Your task to perform on an android device: search for starred emails in the gmail app Image 0: 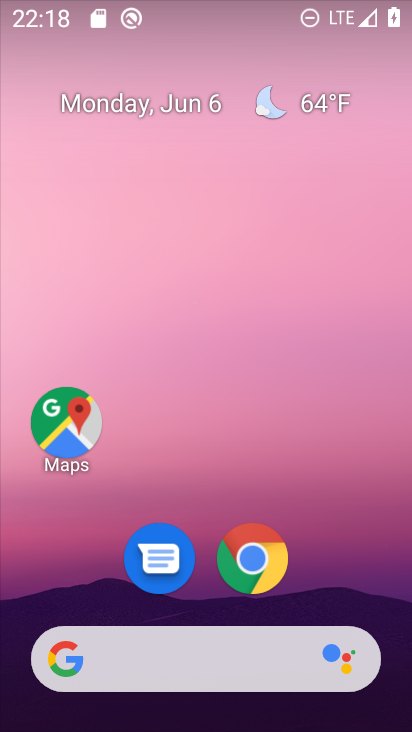
Step 0: drag from (268, 683) to (245, 2)
Your task to perform on an android device: search for starred emails in the gmail app Image 1: 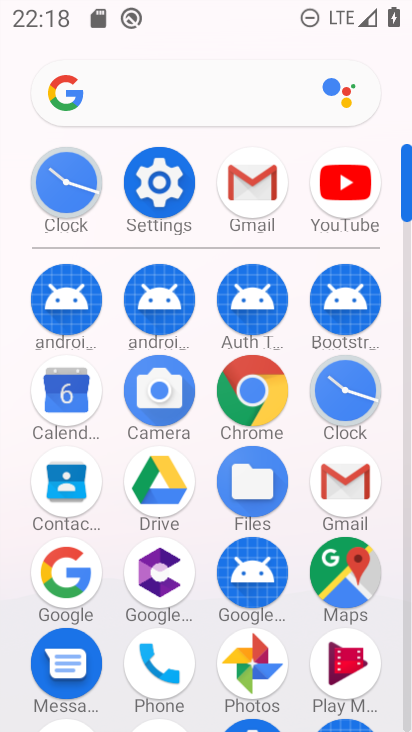
Step 1: click (253, 192)
Your task to perform on an android device: search for starred emails in the gmail app Image 2: 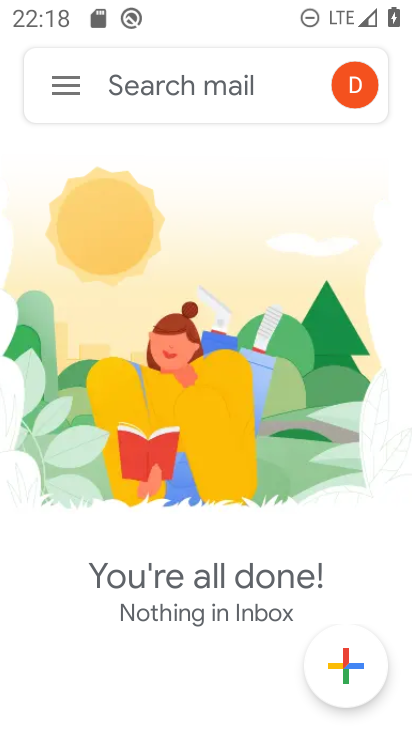
Step 2: click (54, 89)
Your task to perform on an android device: search for starred emails in the gmail app Image 3: 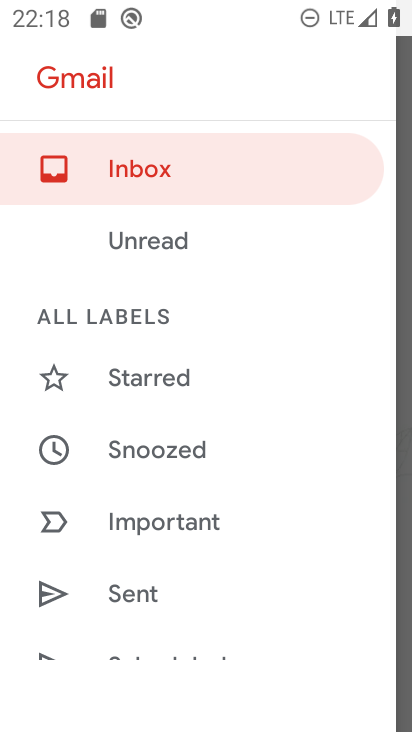
Step 3: drag from (188, 299) to (188, 348)
Your task to perform on an android device: search for starred emails in the gmail app Image 4: 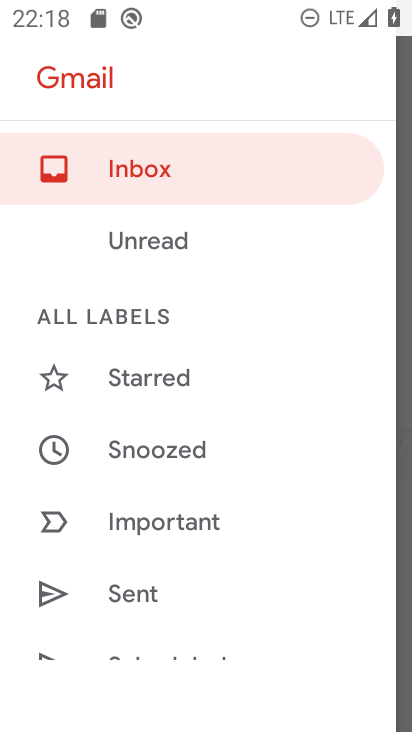
Step 4: click (160, 372)
Your task to perform on an android device: search for starred emails in the gmail app Image 5: 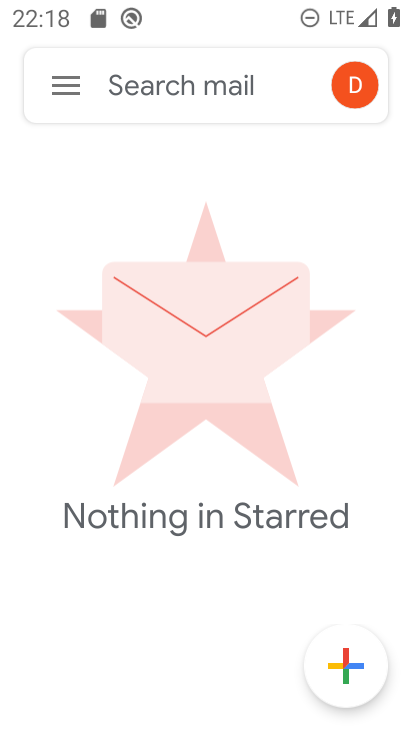
Step 5: task complete